Your task to perform on an android device: refresh tabs in the chrome app Image 0: 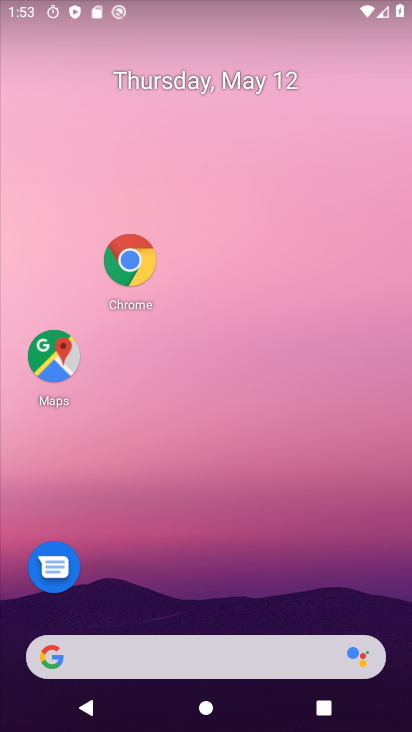
Step 0: click (133, 256)
Your task to perform on an android device: refresh tabs in the chrome app Image 1: 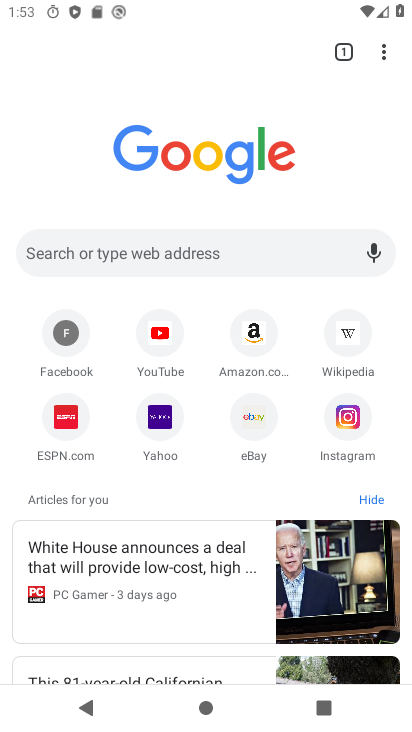
Step 1: click (382, 53)
Your task to perform on an android device: refresh tabs in the chrome app Image 2: 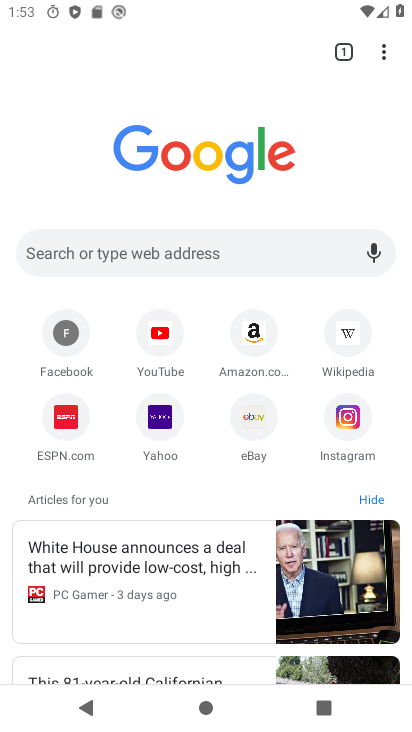
Step 2: click (382, 53)
Your task to perform on an android device: refresh tabs in the chrome app Image 3: 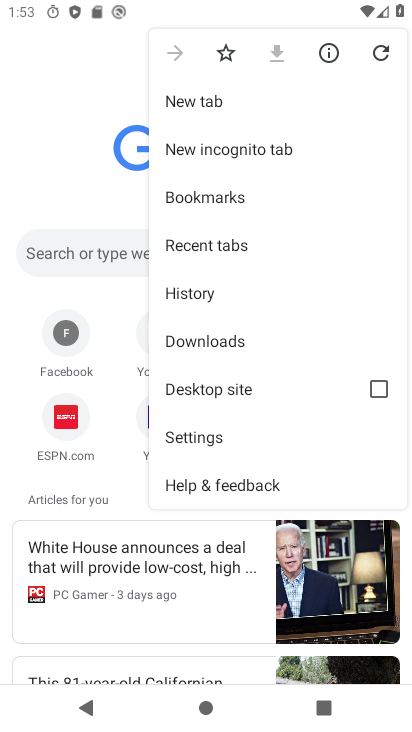
Step 3: click (382, 52)
Your task to perform on an android device: refresh tabs in the chrome app Image 4: 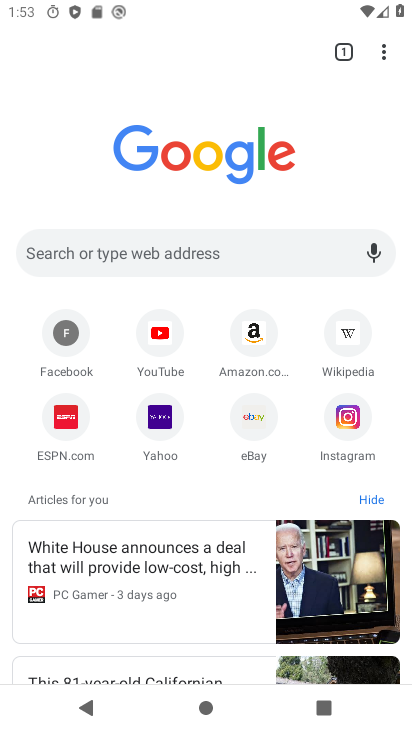
Step 4: task complete